Your task to perform on an android device: Check the weather Image 0: 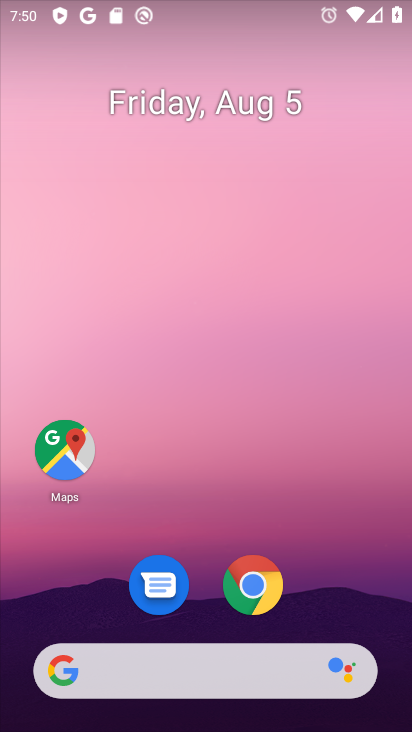
Step 0: click (230, 680)
Your task to perform on an android device: Check the weather Image 1: 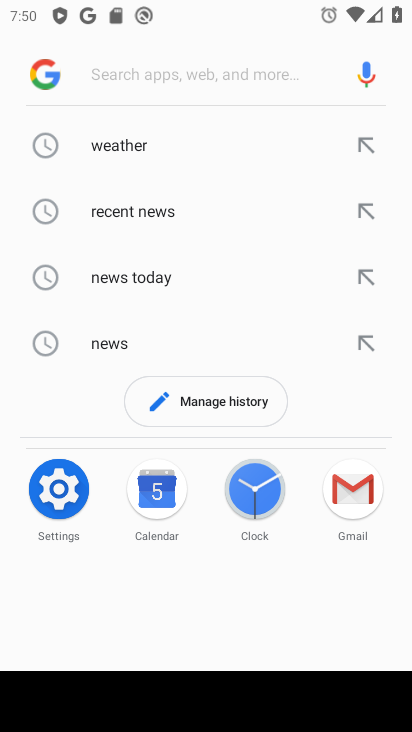
Step 1: click (133, 144)
Your task to perform on an android device: Check the weather Image 2: 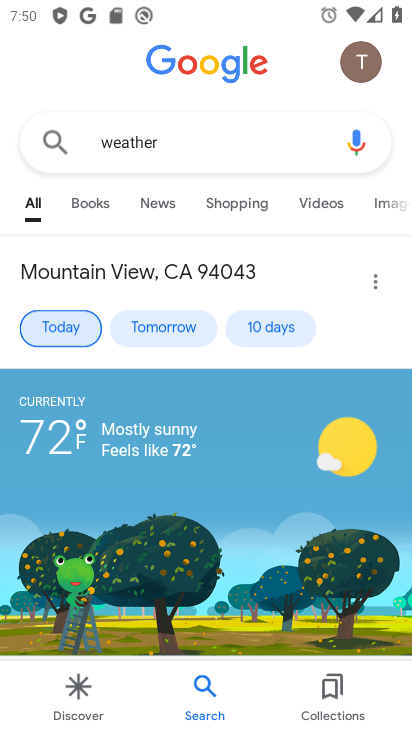
Step 2: click (74, 327)
Your task to perform on an android device: Check the weather Image 3: 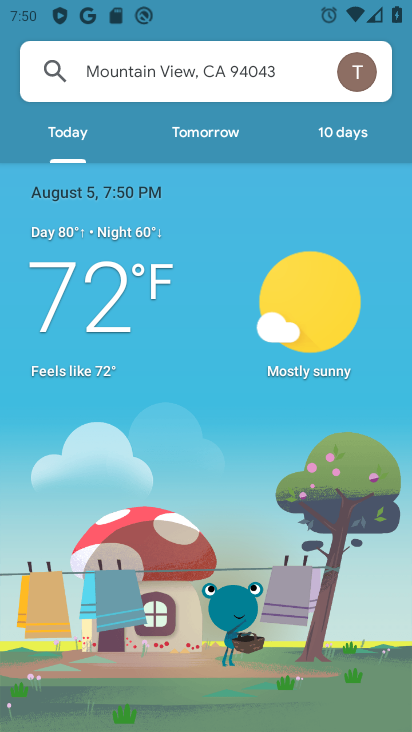
Step 3: task complete